Your task to perform on an android device: change notification settings in the gmail app Image 0: 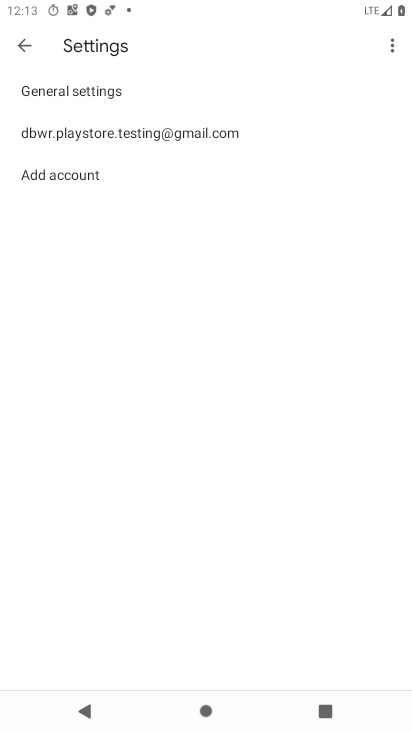
Step 0: drag from (332, 601) to (341, 242)
Your task to perform on an android device: change notification settings in the gmail app Image 1: 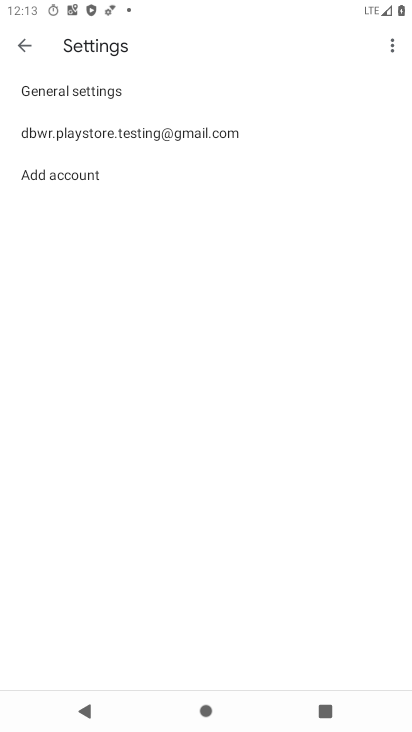
Step 1: press home button
Your task to perform on an android device: change notification settings in the gmail app Image 2: 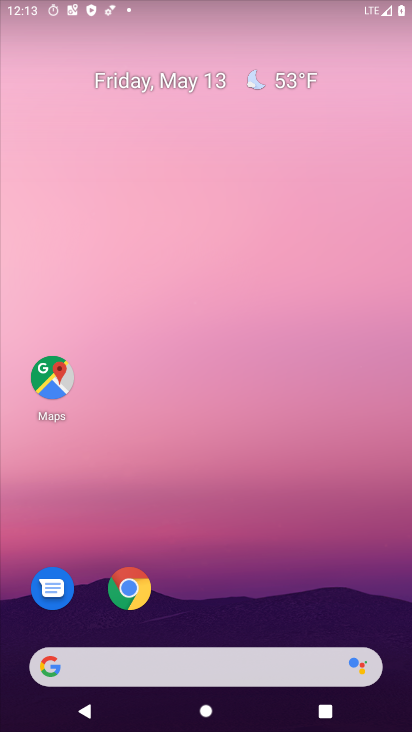
Step 2: drag from (303, 519) to (232, 262)
Your task to perform on an android device: change notification settings in the gmail app Image 3: 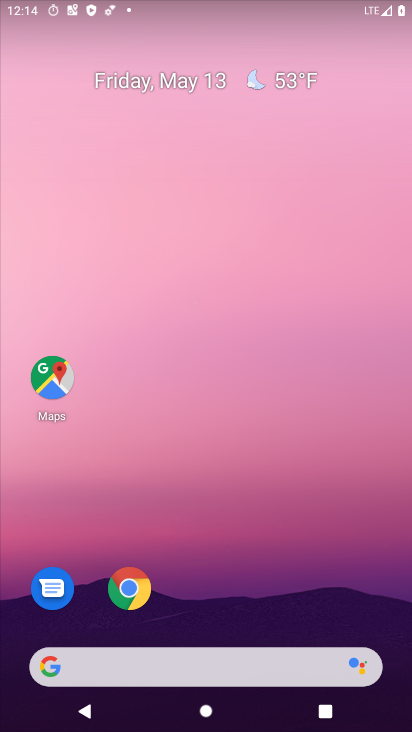
Step 3: drag from (259, 597) to (220, 71)
Your task to perform on an android device: change notification settings in the gmail app Image 4: 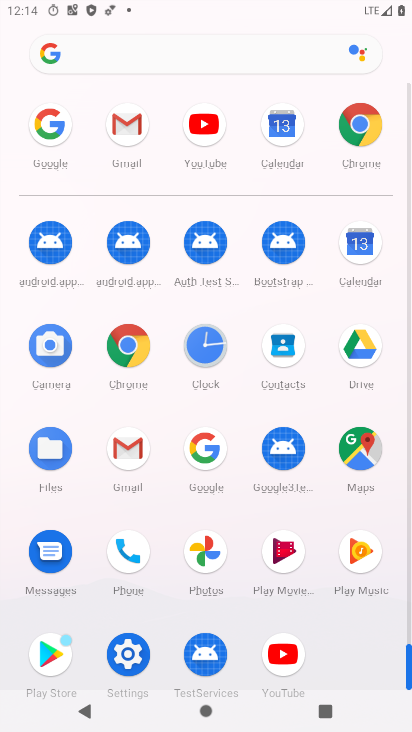
Step 4: click (137, 120)
Your task to perform on an android device: change notification settings in the gmail app Image 5: 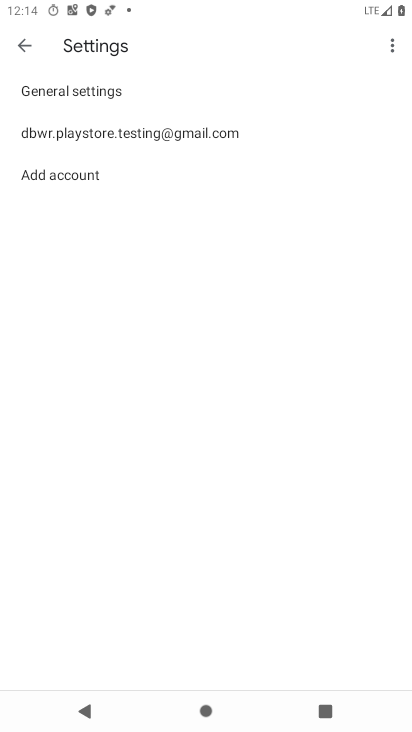
Step 5: click (130, 126)
Your task to perform on an android device: change notification settings in the gmail app Image 6: 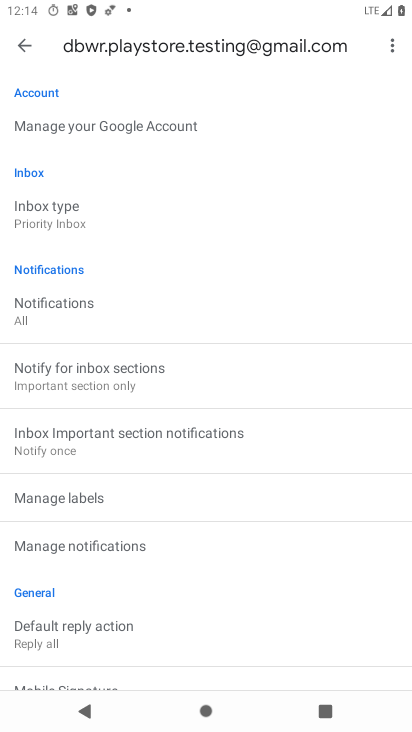
Step 6: drag from (143, 542) to (220, 77)
Your task to perform on an android device: change notification settings in the gmail app Image 7: 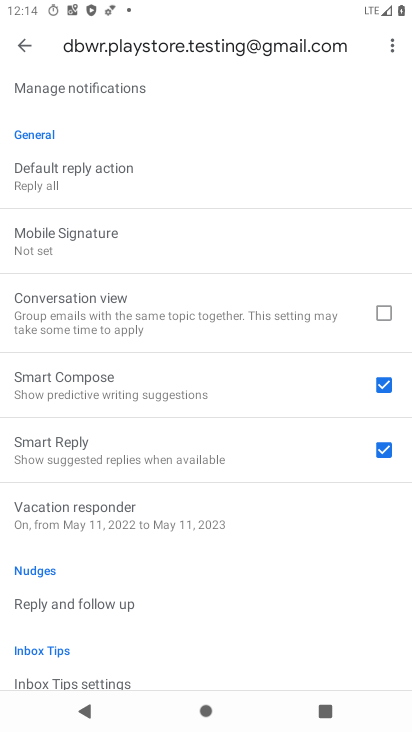
Step 7: drag from (146, 514) to (203, 635)
Your task to perform on an android device: change notification settings in the gmail app Image 8: 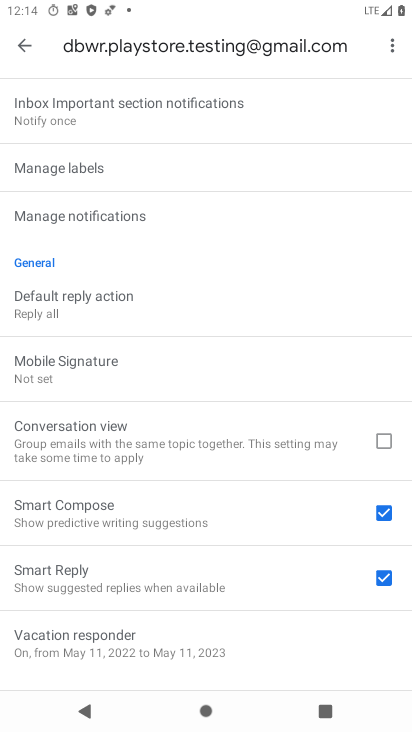
Step 8: click (138, 214)
Your task to perform on an android device: change notification settings in the gmail app Image 9: 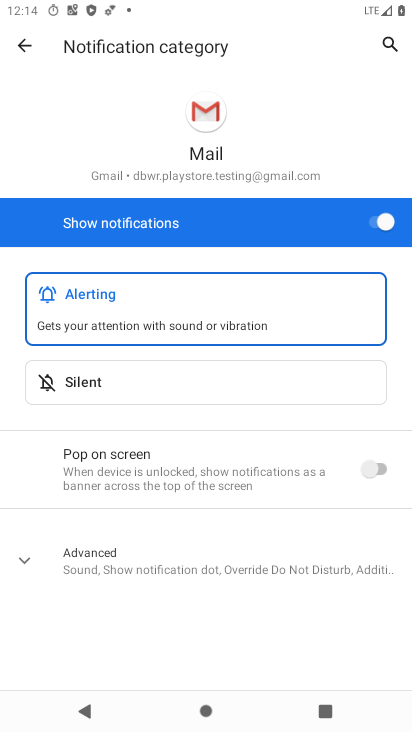
Step 9: click (384, 213)
Your task to perform on an android device: change notification settings in the gmail app Image 10: 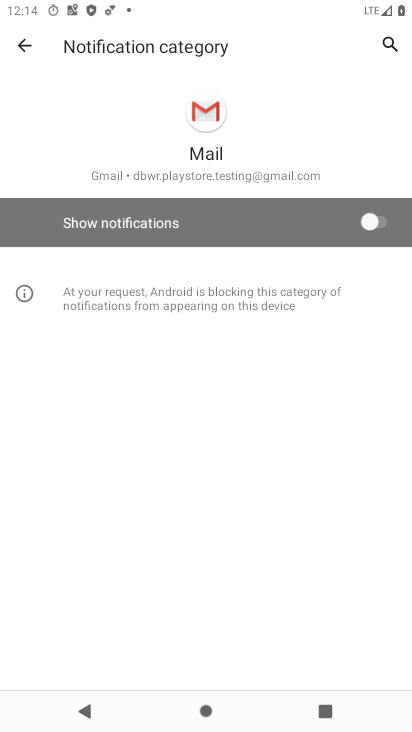
Step 10: task complete